Your task to perform on an android device: Open Google Chrome and open the bookmarks view Image 0: 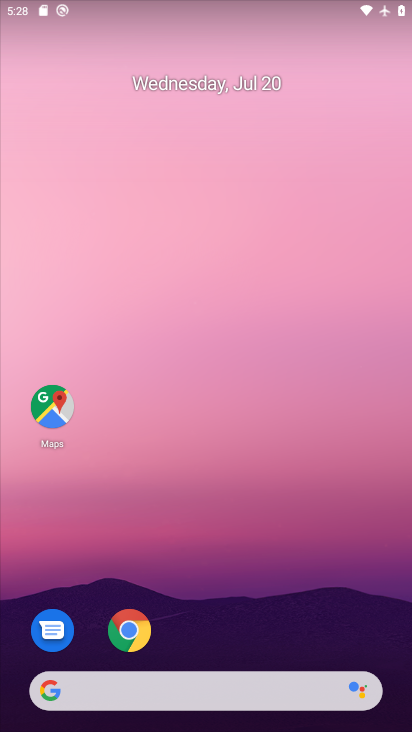
Step 0: drag from (250, 578) to (283, 79)
Your task to perform on an android device: Open Google Chrome and open the bookmarks view Image 1: 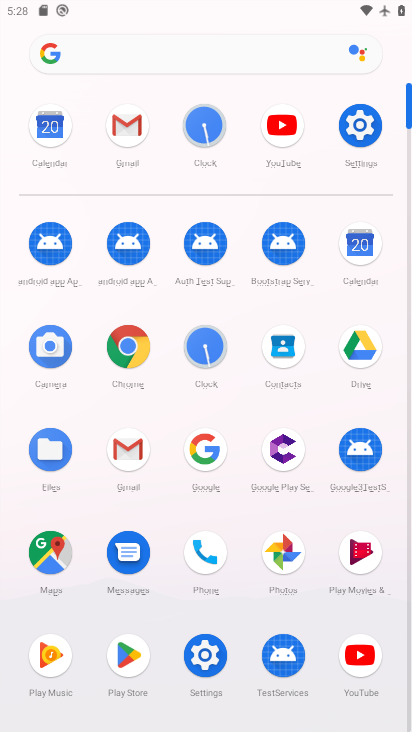
Step 1: click (134, 360)
Your task to perform on an android device: Open Google Chrome and open the bookmarks view Image 2: 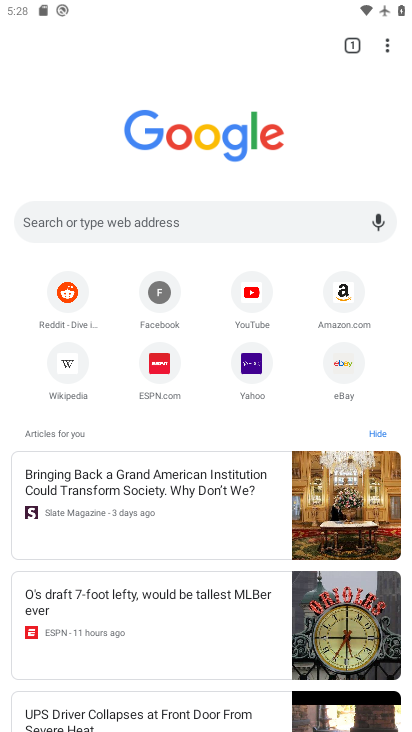
Step 2: task complete